Your task to perform on an android device: Open Reddit.com Image 0: 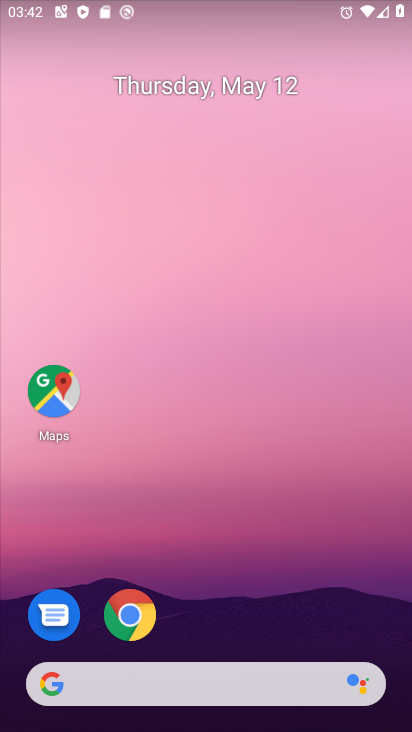
Step 0: click (135, 630)
Your task to perform on an android device: Open Reddit.com Image 1: 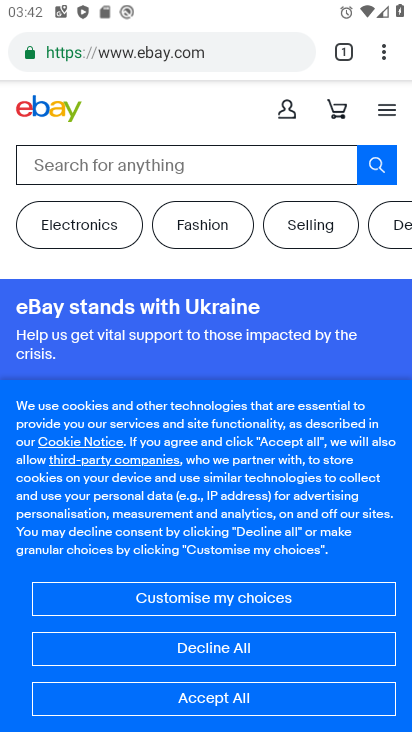
Step 1: click (228, 39)
Your task to perform on an android device: Open Reddit.com Image 2: 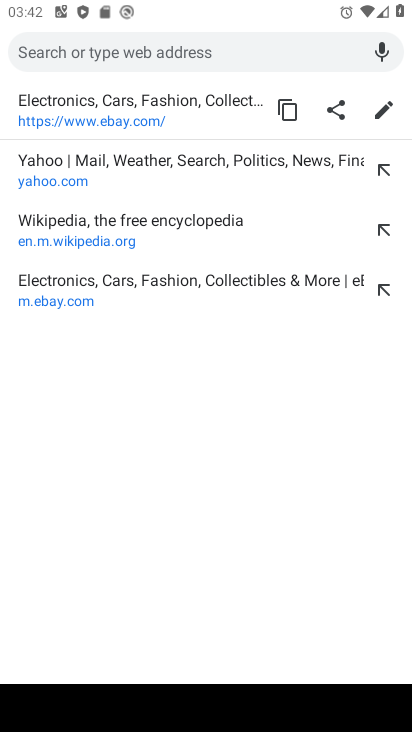
Step 2: type "Reddit.com"
Your task to perform on an android device: Open Reddit.com Image 3: 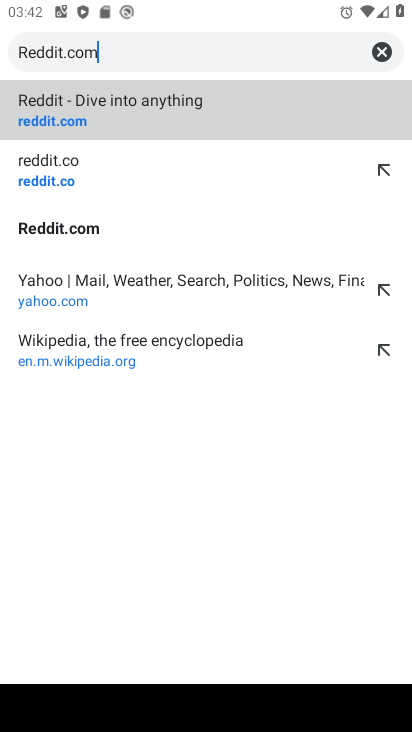
Step 3: type ""
Your task to perform on an android device: Open Reddit.com Image 4: 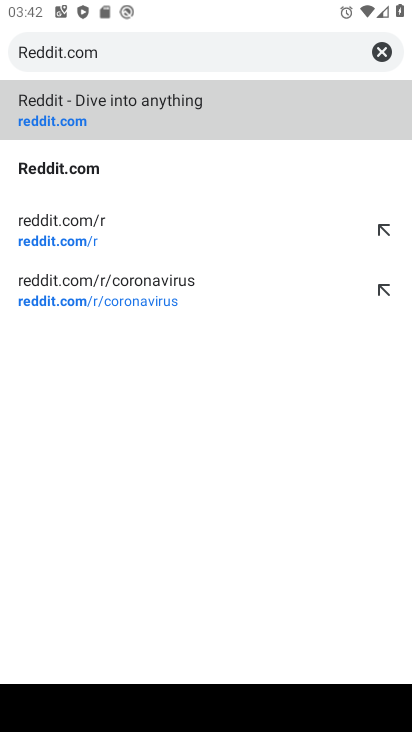
Step 4: click (35, 171)
Your task to perform on an android device: Open Reddit.com Image 5: 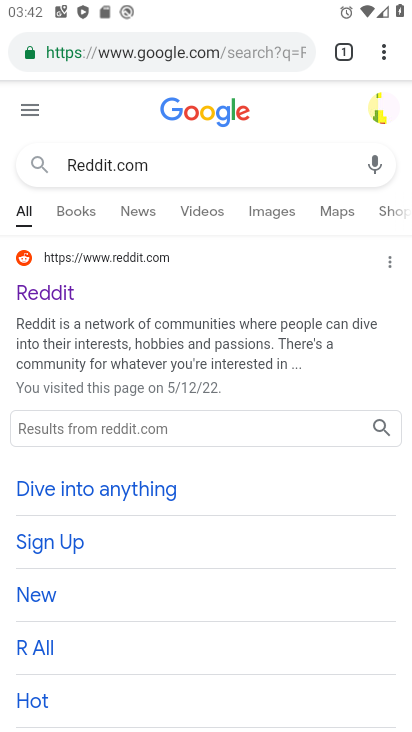
Step 5: click (62, 287)
Your task to perform on an android device: Open Reddit.com Image 6: 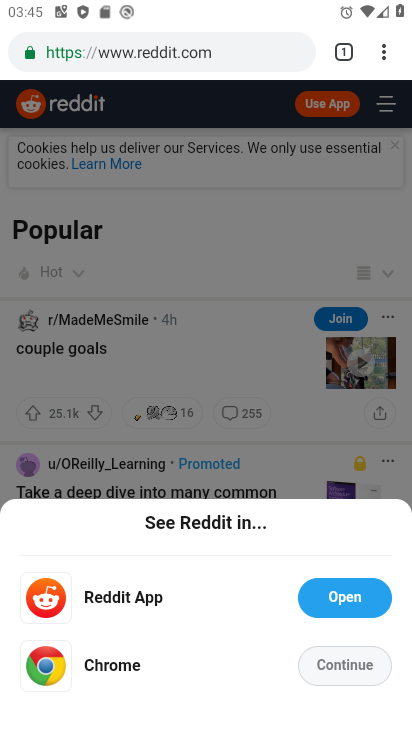
Step 6: task complete